Your task to perform on an android device: change text size in settings app Image 0: 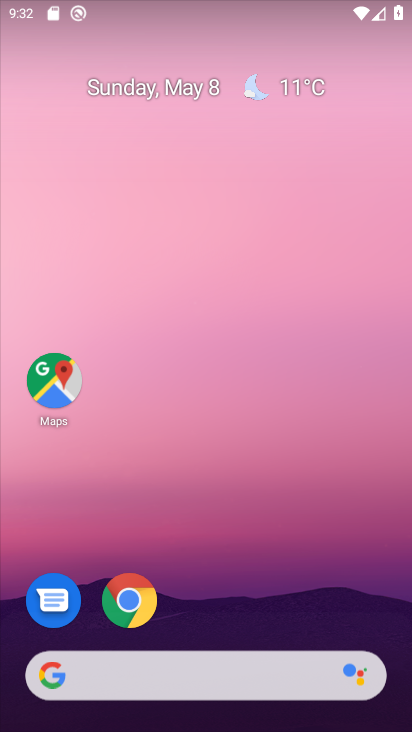
Step 0: drag from (241, 620) to (239, 84)
Your task to perform on an android device: change text size in settings app Image 1: 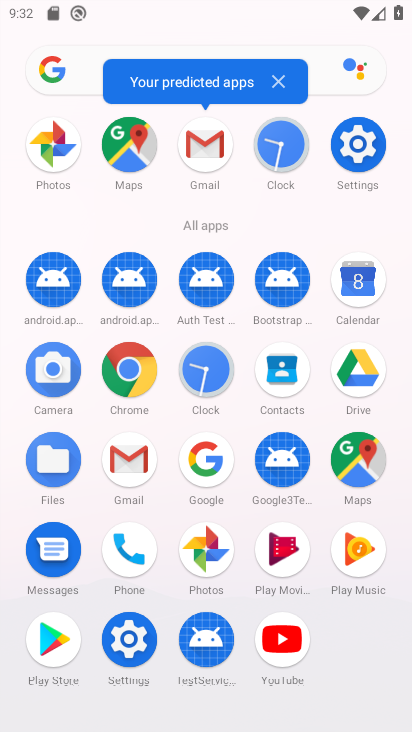
Step 1: click (357, 168)
Your task to perform on an android device: change text size in settings app Image 2: 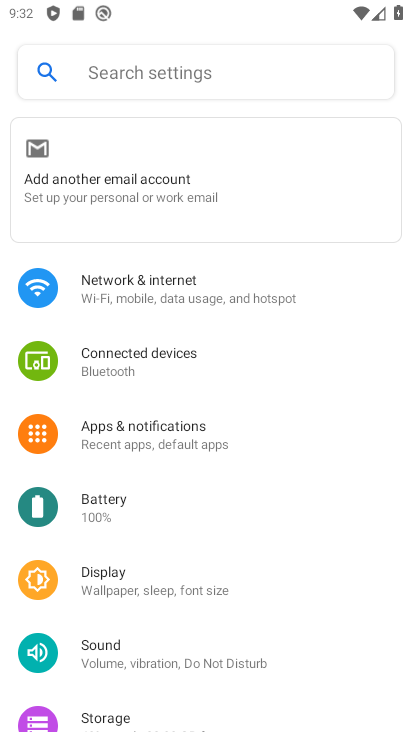
Step 2: click (158, 590)
Your task to perform on an android device: change text size in settings app Image 3: 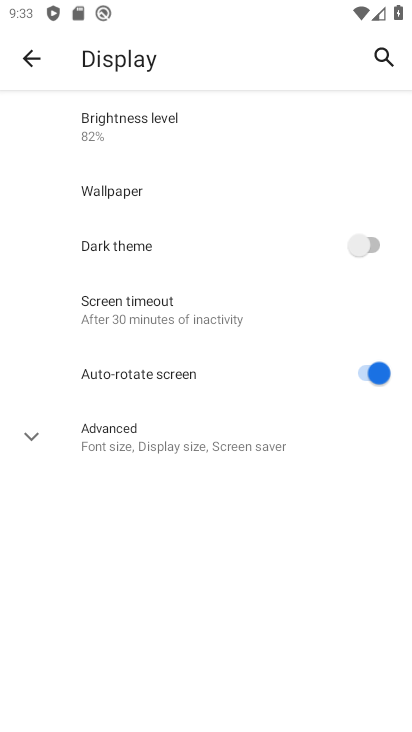
Step 3: click (210, 452)
Your task to perform on an android device: change text size in settings app Image 4: 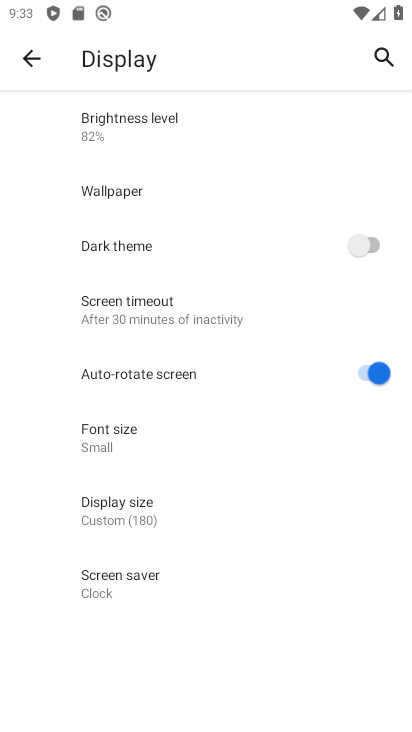
Step 4: click (94, 433)
Your task to perform on an android device: change text size in settings app Image 5: 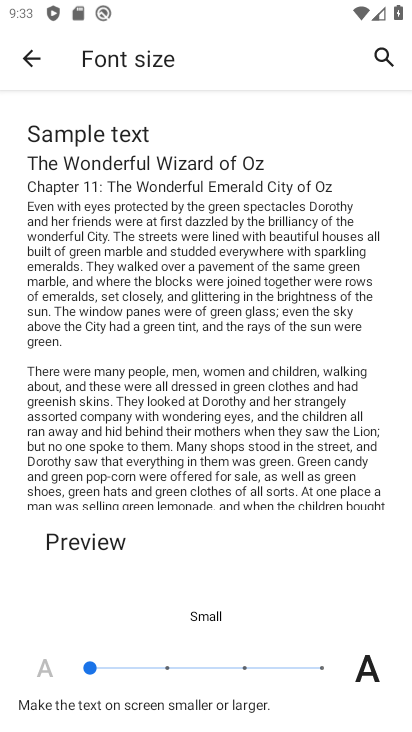
Step 5: click (164, 659)
Your task to perform on an android device: change text size in settings app Image 6: 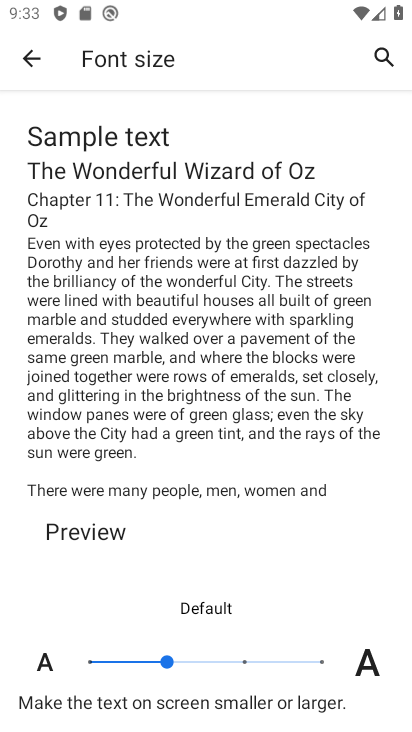
Step 6: task complete